Your task to perform on an android device: Open Google Maps Image 0: 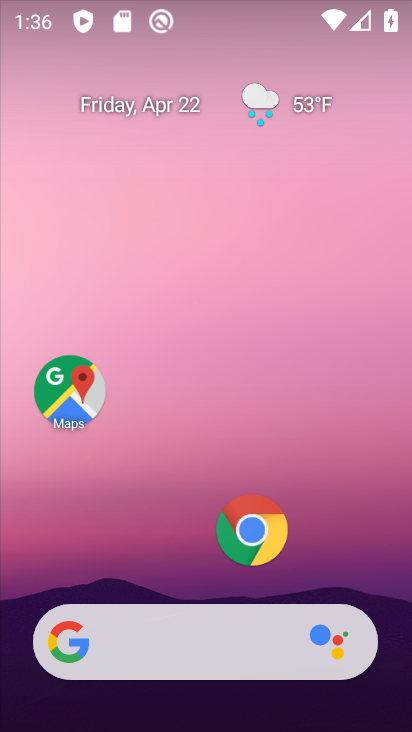
Step 0: click (120, 148)
Your task to perform on an android device: Open Google Maps Image 1: 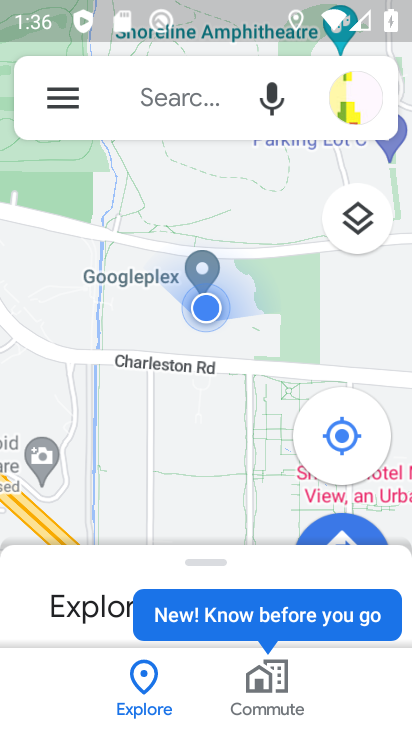
Step 1: drag from (194, 480) to (217, 174)
Your task to perform on an android device: Open Google Maps Image 2: 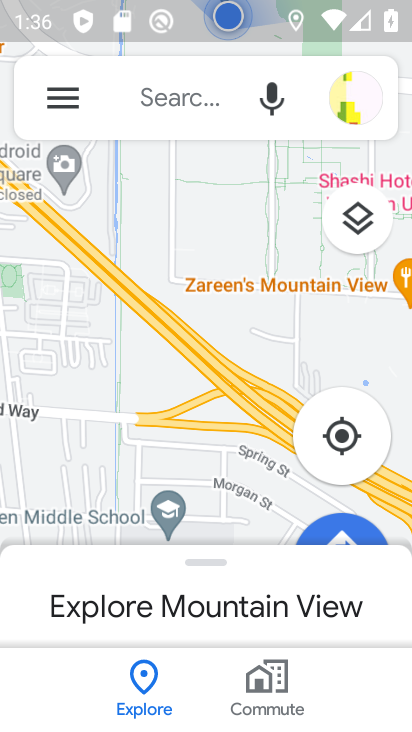
Step 2: click (333, 438)
Your task to perform on an android device: Open Google Maps Image 3: 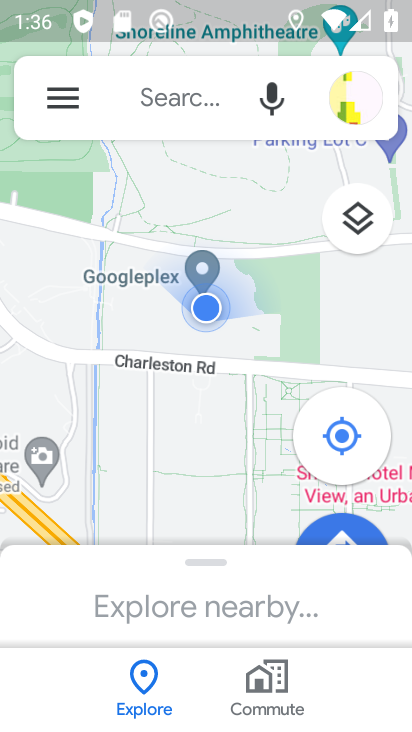
Step 3: task complete